Your task to perform on an android device: Go to Yahoo.com Image 0: 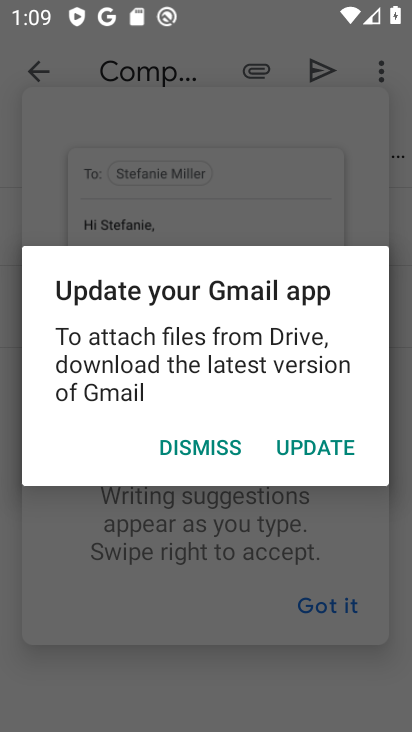
Step 0: press home button
Your task to perform on an android device: Go to Yahoo.com Image 1: 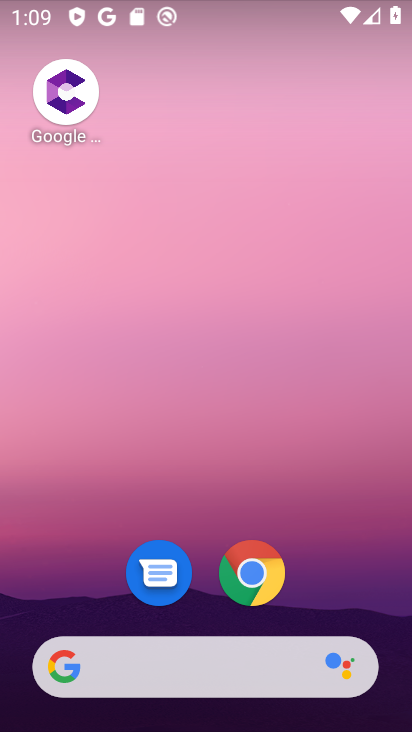
Step 1: drag from (194, 528) to (194, 219)
Your task to perform on an android device: Go to Yahoo.com Image 2: 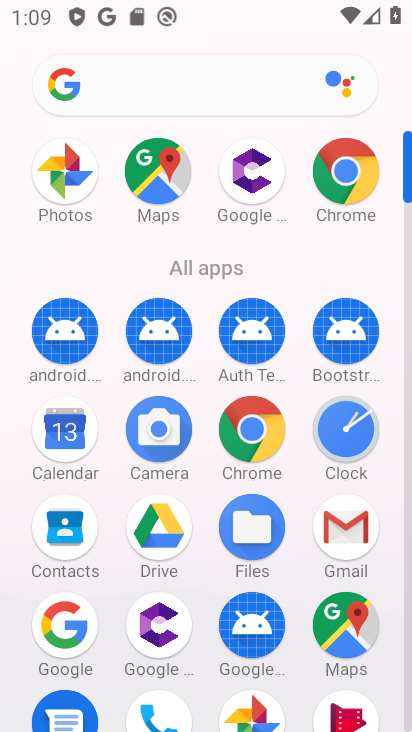
Step 2: click (331, 168)
Your task to perform on an android device: Go to Yahoo.com Image 3: 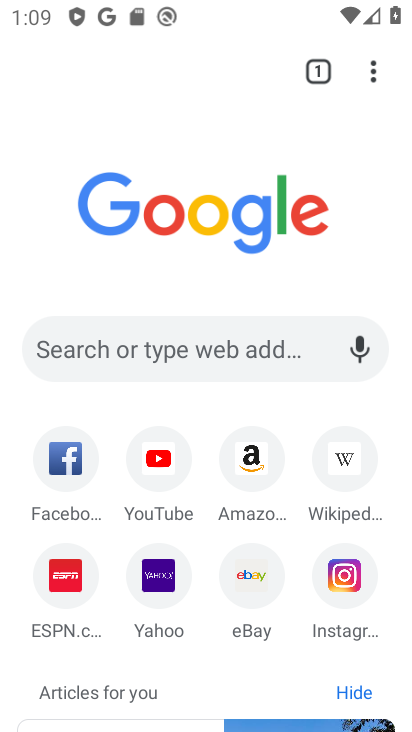
Step 3: click (163, 580)
Your task to perform on an android device: Go to Yahoo.com Image 4: 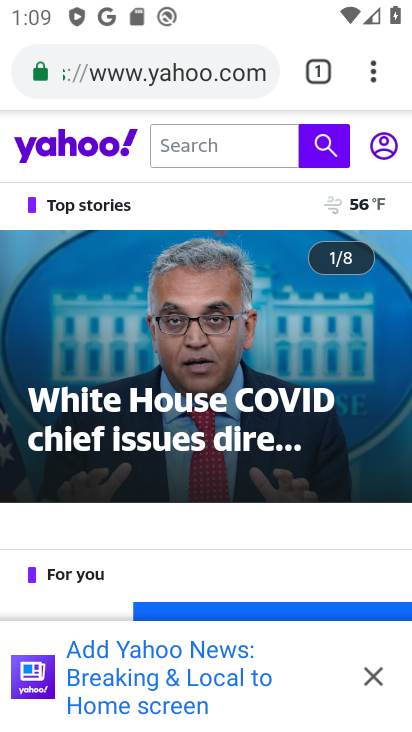
Step 4: click (369, 679)
Your task to perform on an android device: Go to Yahoo.com Image 5: 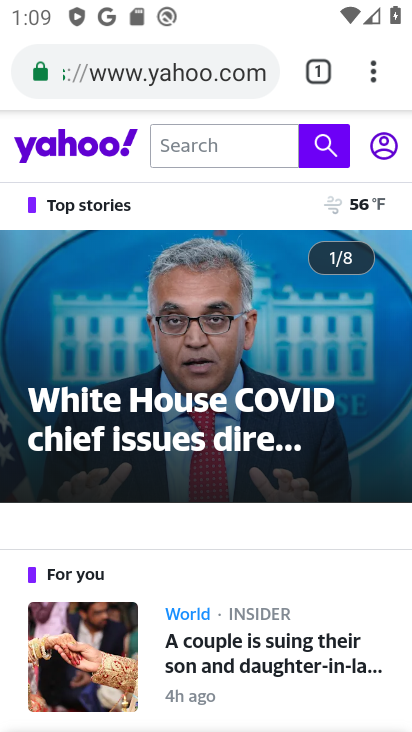
Step 5: task complete